Your task to perform on an android device: When is my next appointment? Image 0: 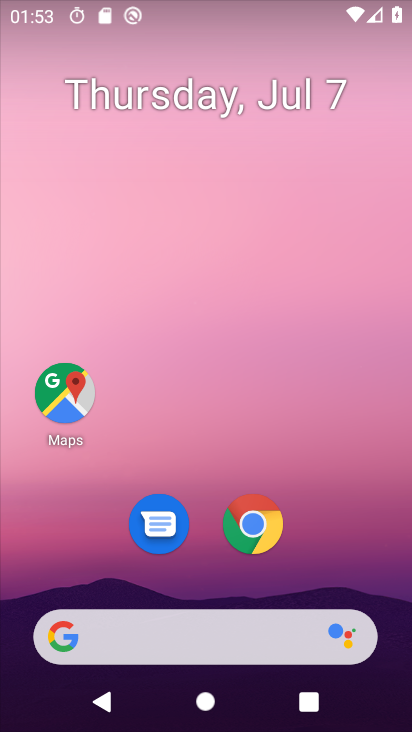
Step 0: drag from (258, 444) to (286, 0)
Your task to perform on an android device: When is my next appointment? Image 1: 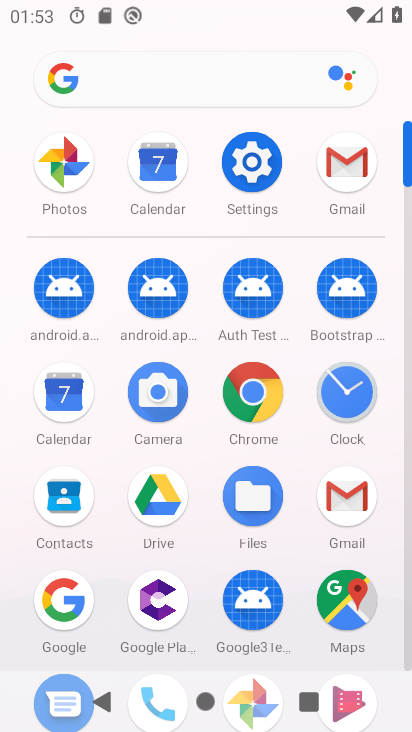
Step 1: click (70, 406)
Your task to perform on an android device: When is my next appointment? Image 2: 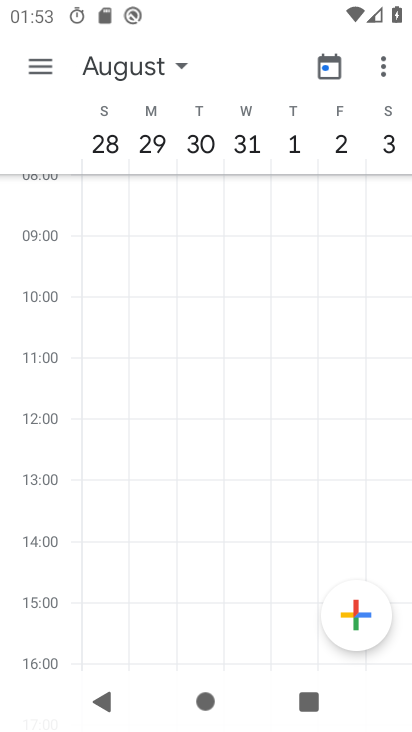
Step 2: click (41, 64)
Your task to perform on an android device: When is my next appointment? Image 3: 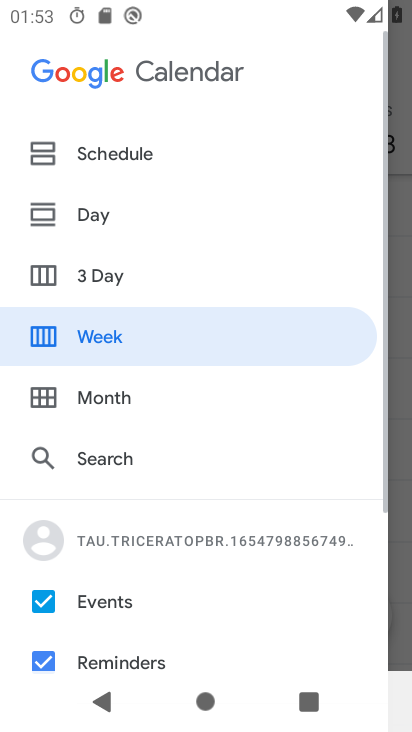
Step 3: click (87, 392)
Your task to perform on an android device: When is my next appointment? Image 4: 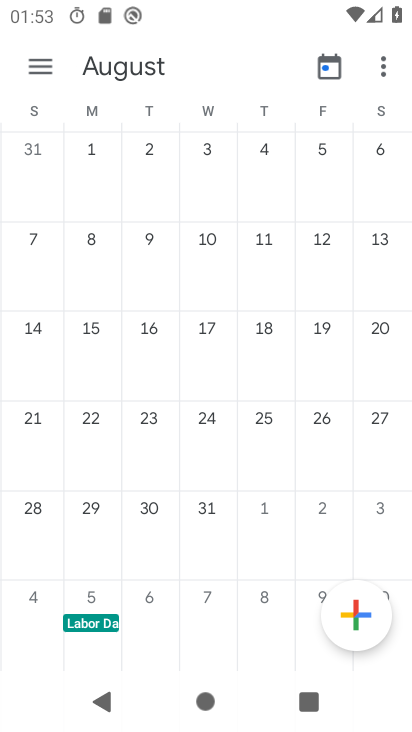
Step 4: drag from (85, 328) to (392, 293)
Your task to perform on an android device: When is my next appointment? Image 5: 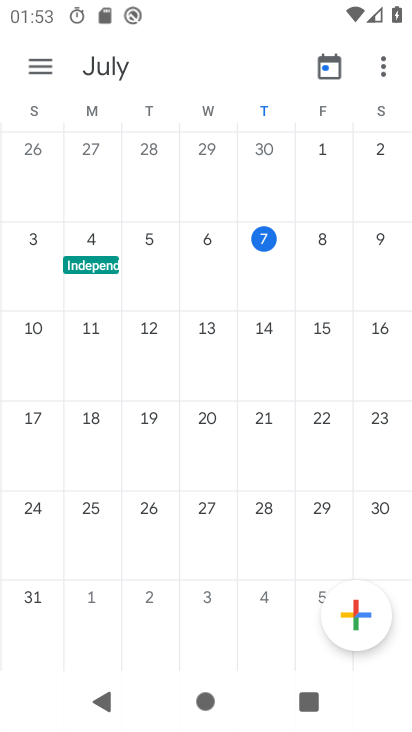
Step 5: click (277, 259)
Your task to perform on an android device: When is my next appointment? Image 6: 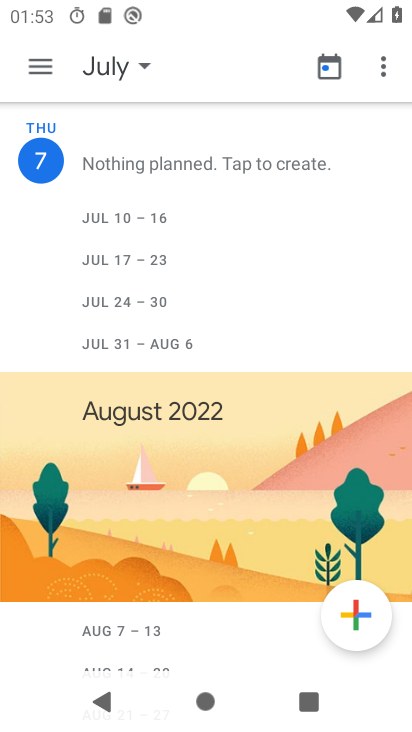
Step 6: click (43, 61)
Your task to perform on an android device: When is my next appointment? Image 7: 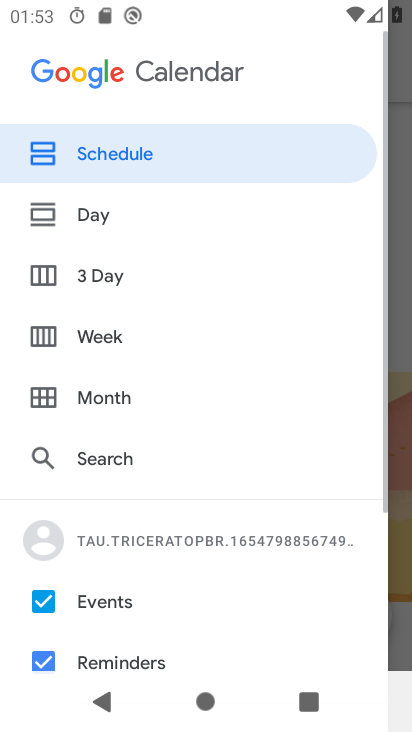
Step 7: click (107, 148)
Your task to perform on an android device: When is my next appointment? Image 8: 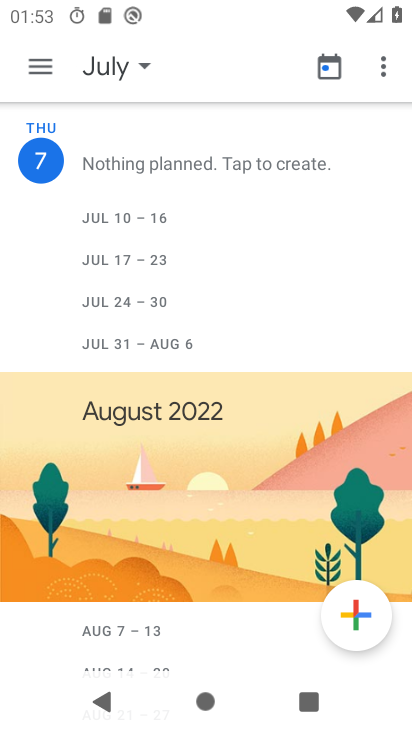
Step 8: task complete